Your task to perform on an android device: open app "Booking.com: Hotels and more" (install if not already installed) Image 0: 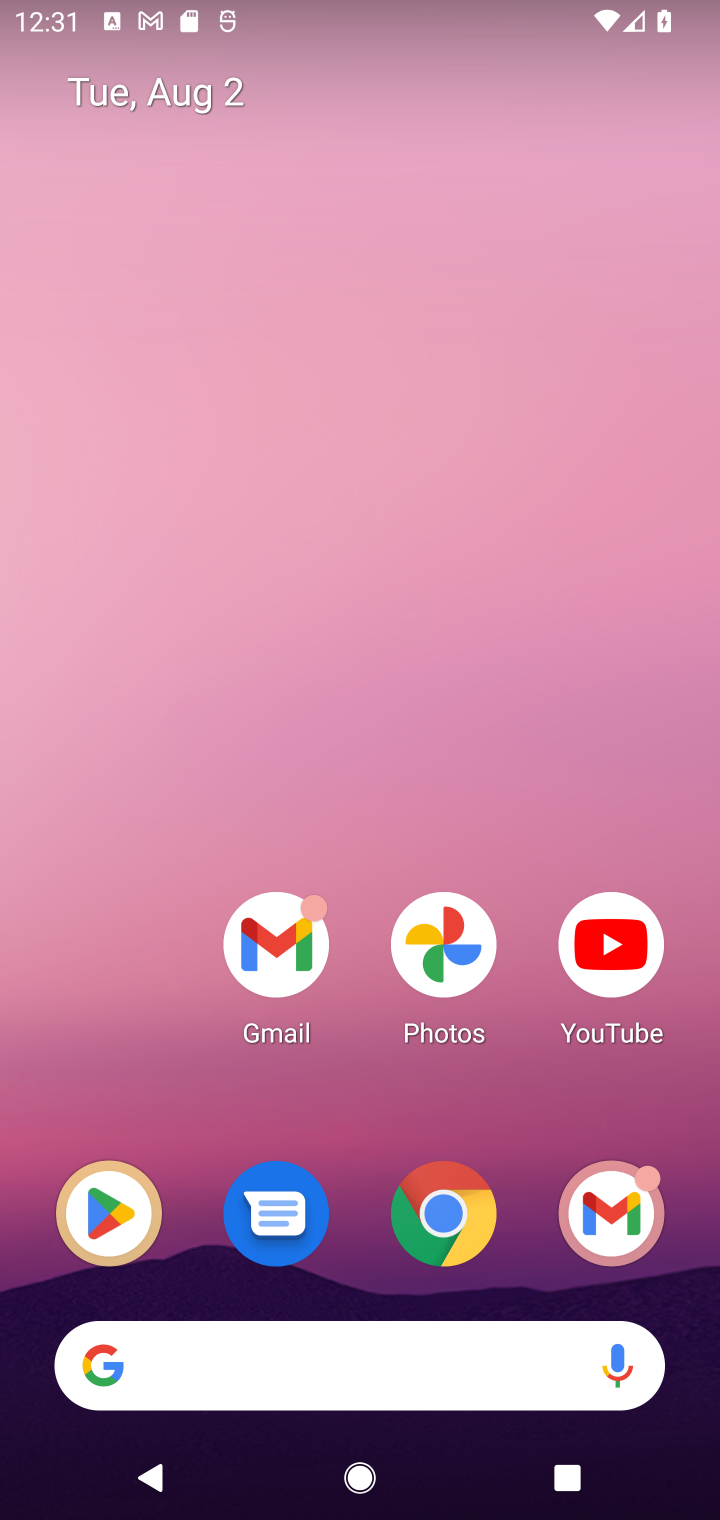
Step 0: click (138, 1214)
Your task to perform on an android device: open app "Booking.com: Hotels and more" (install if not already installed) Image 1: 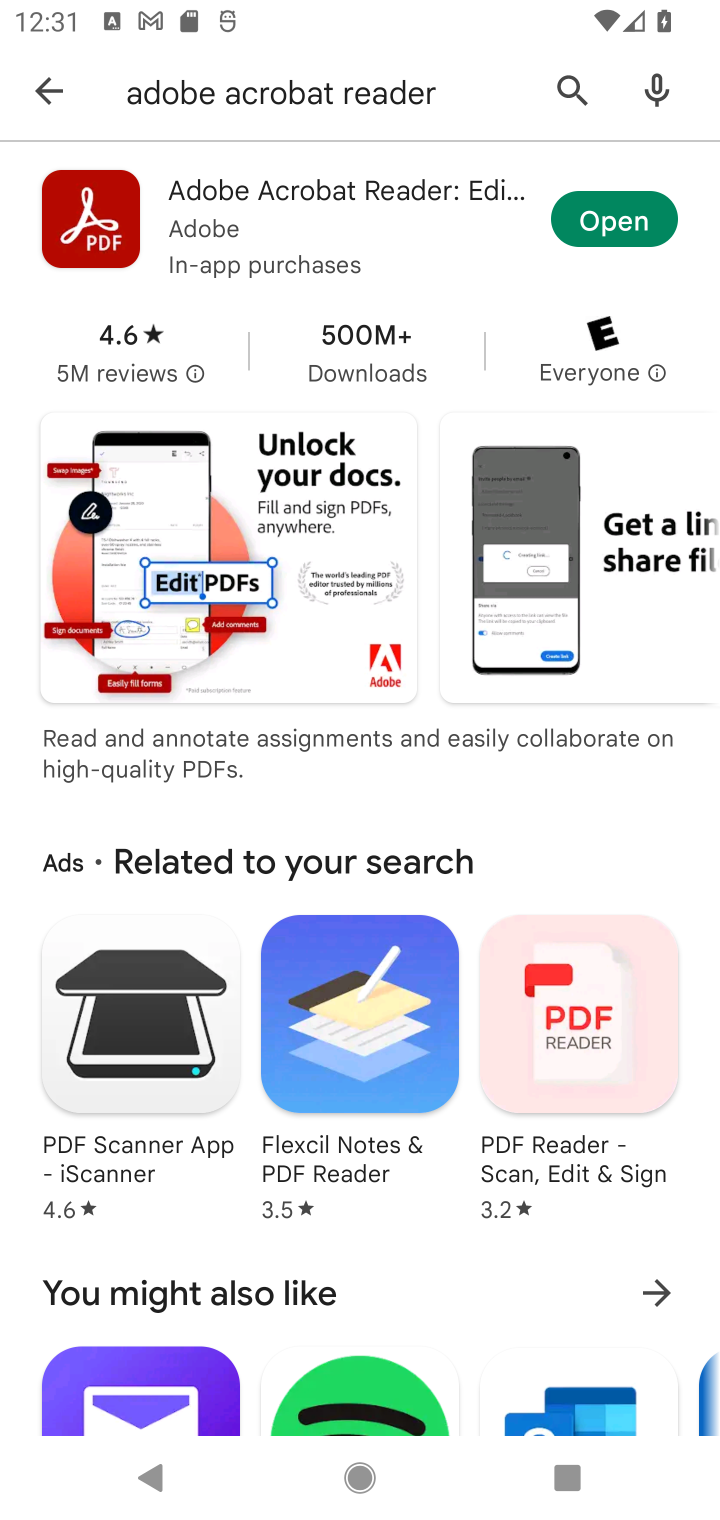
Step 1: click (49, 92)
Your task to perform on an android device: open app "Booking.com: Hotels and more" (install if not already installed) Image 2: 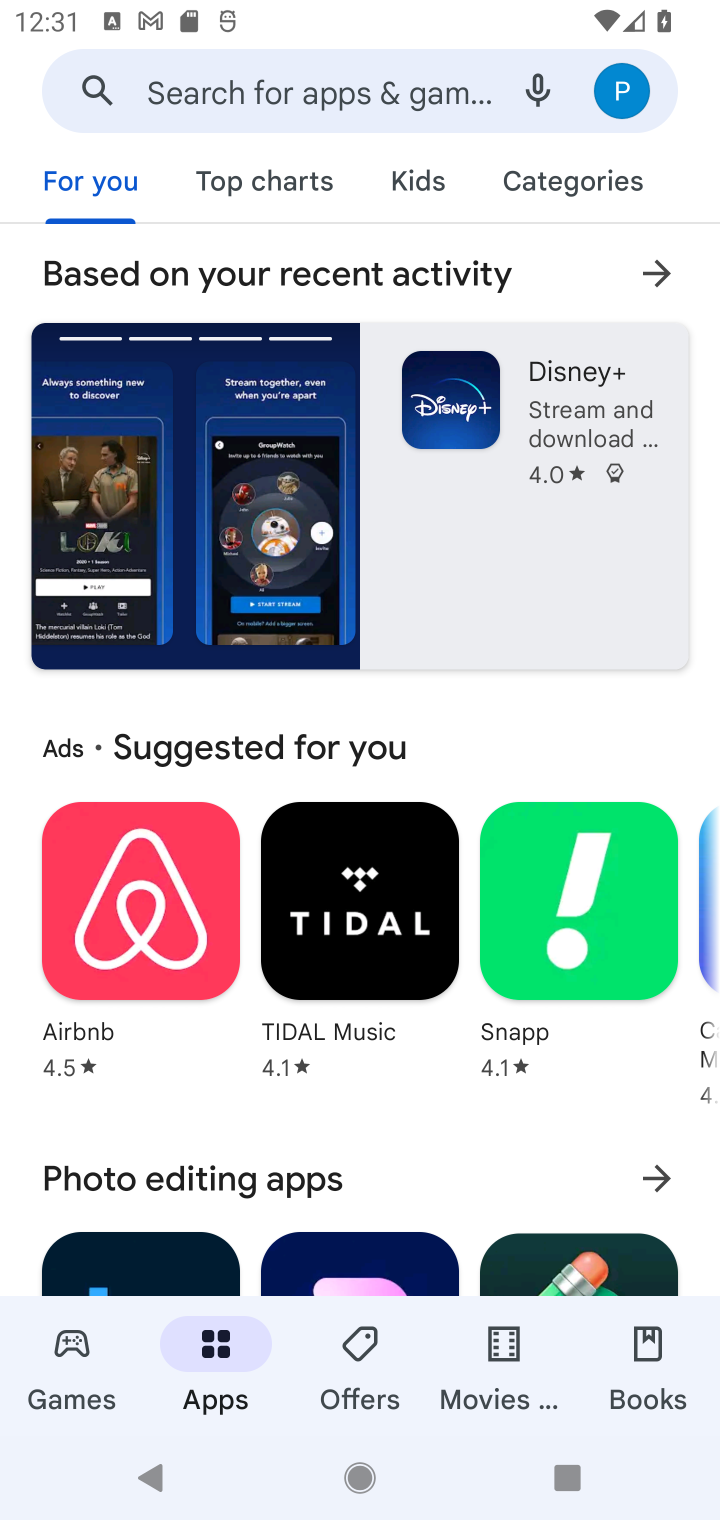
Step 2: click (257, 76)
Your task to perform on an android device: open app "Booking.com: Hotels and more" (install if not already installed) Image 3: 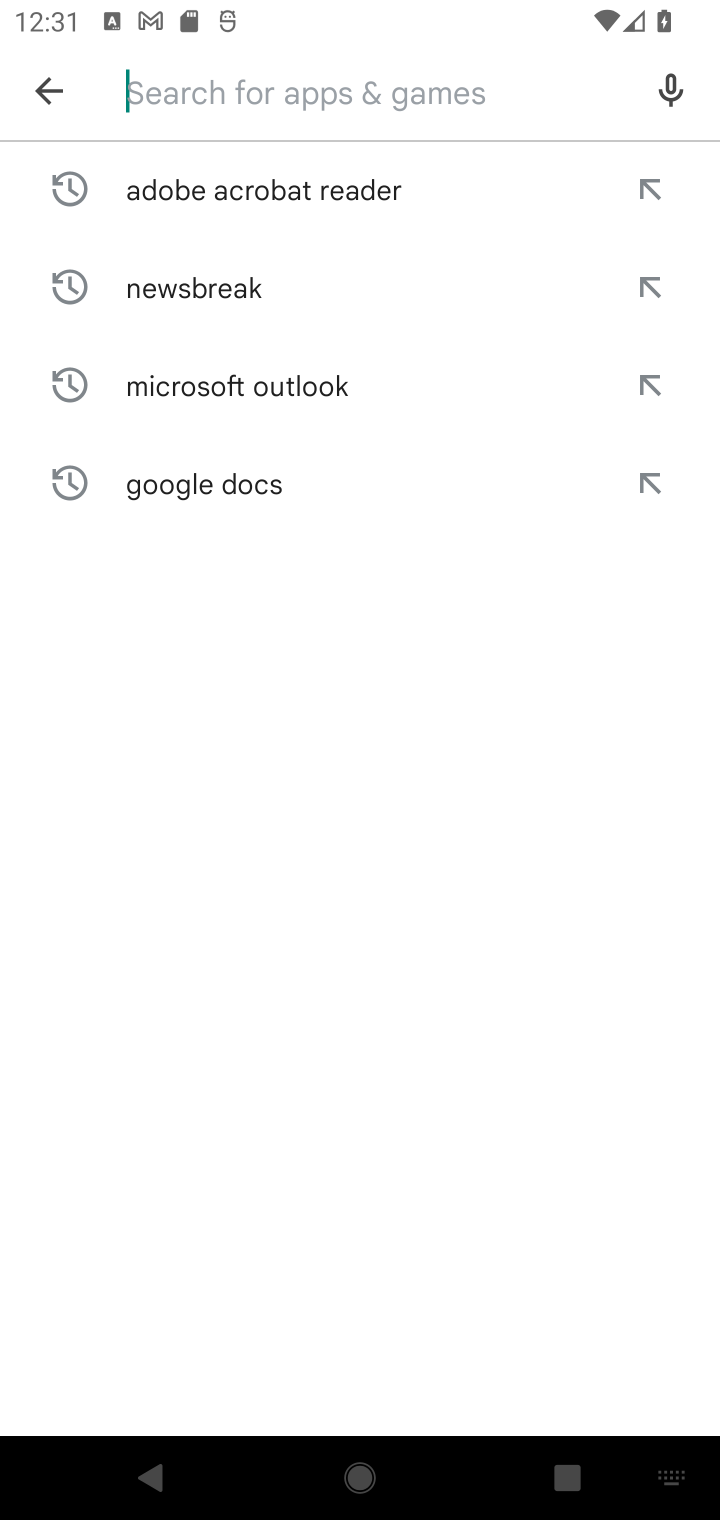
Step 3: type "Booking.com: Hotels and more"
Your task to perform on an android device: open app "Booking.com: Hotels and more" (install if not already installed) Image 4: 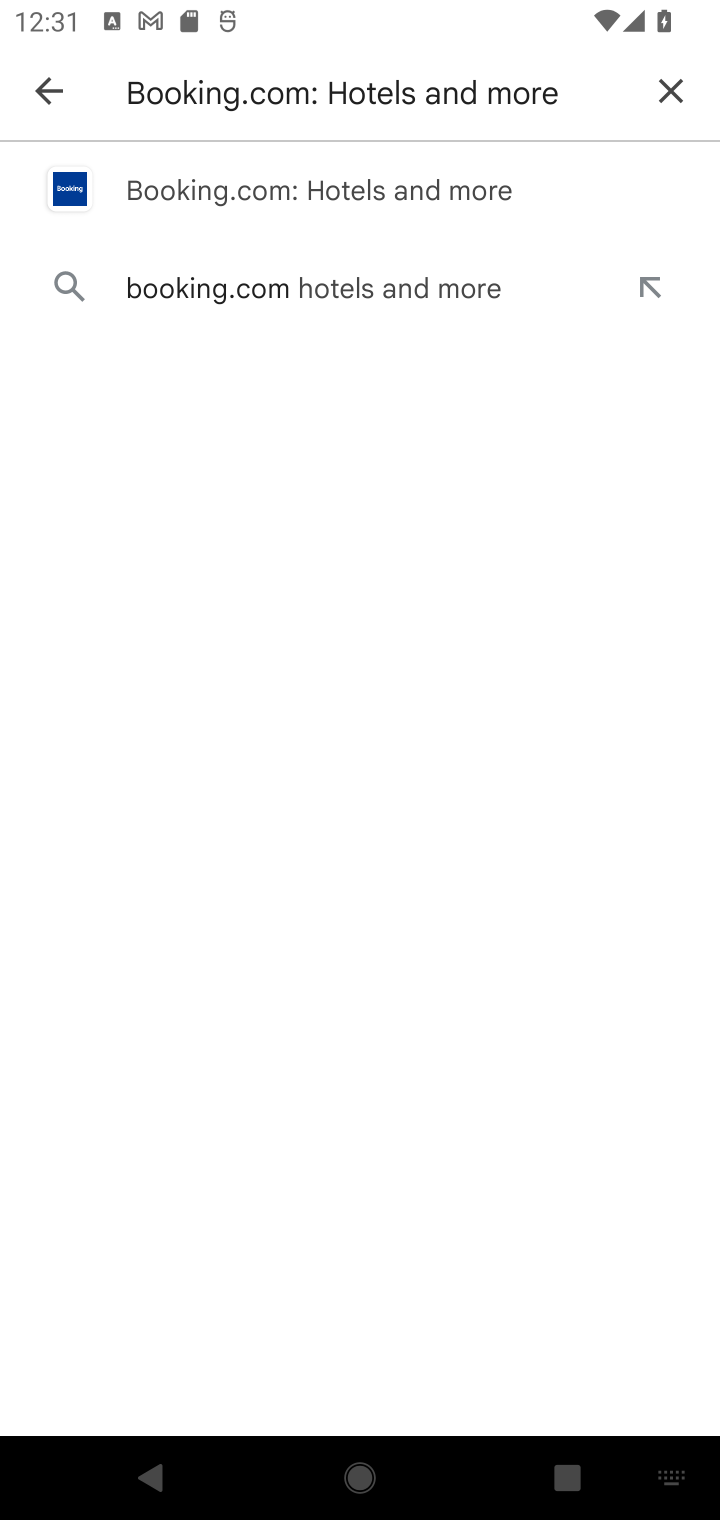
Step 4: click (215, 221)
Your task to perform on an android device: open app "Booking.com: Hotels and more" (install if not already installed) Image 5: 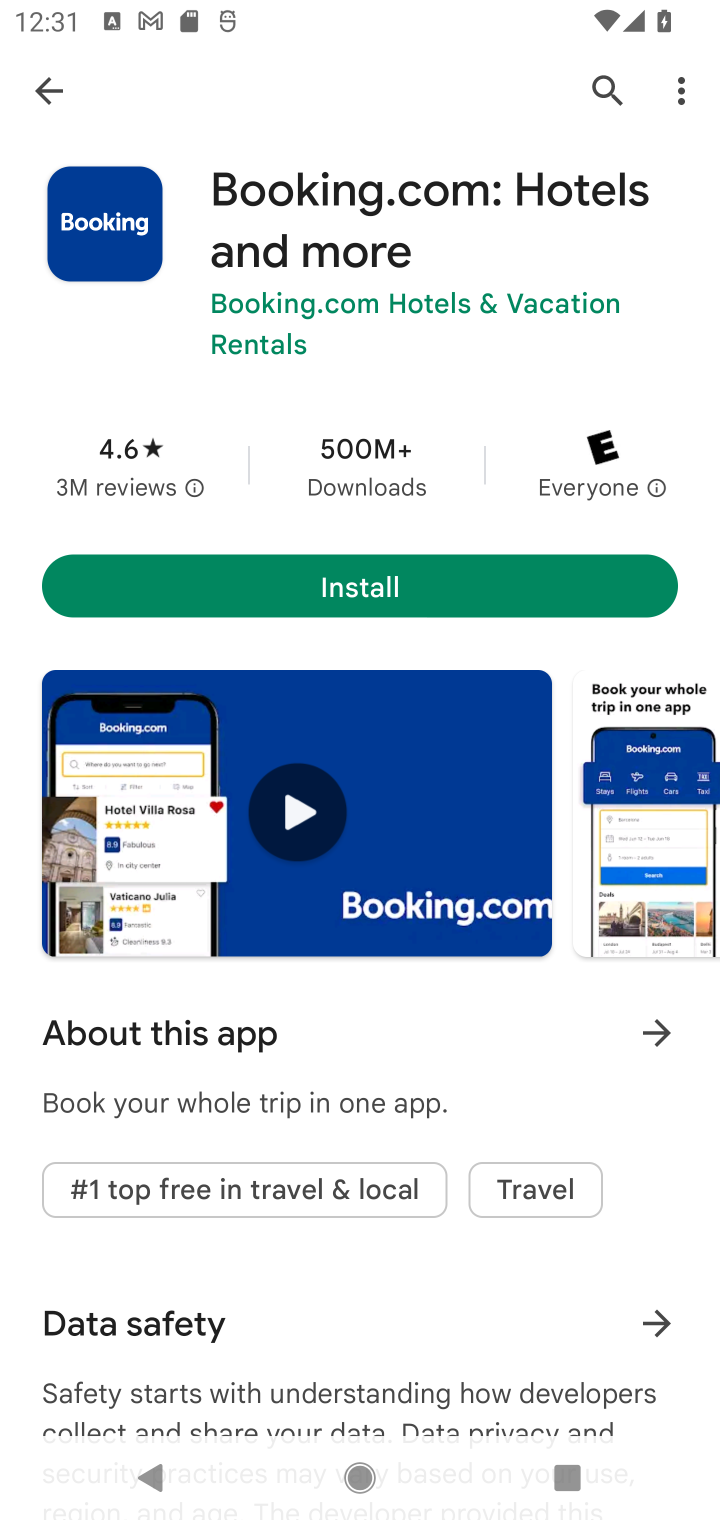
Step 5: click (337, 583)
Your task to perform on an android device: open app "Booking.com: Hotels and more" (install if not already installed) Image 6: 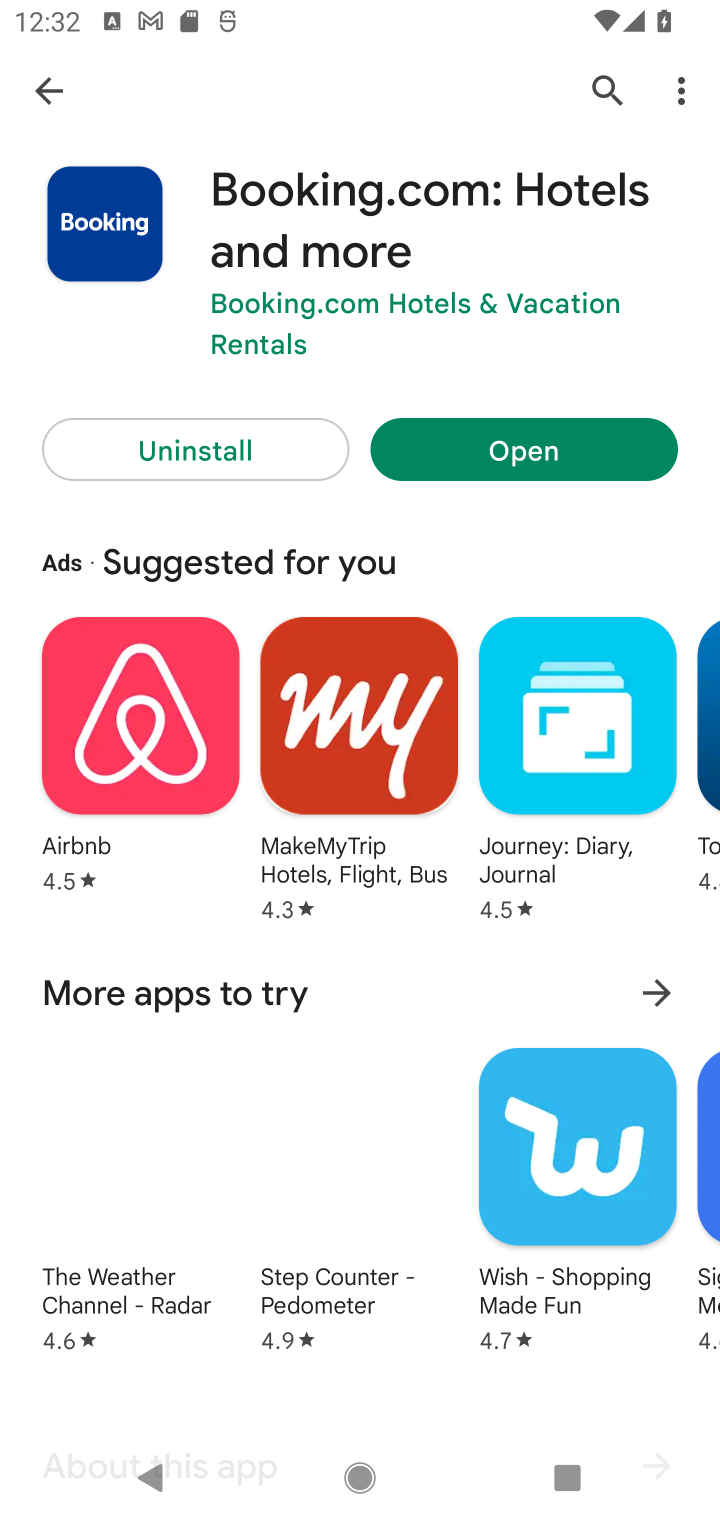
Step 6: click (514, 419)
Your task to perform on an android device: open app "Booking.com: Hotels and more" (install if not already installed) Image 7: 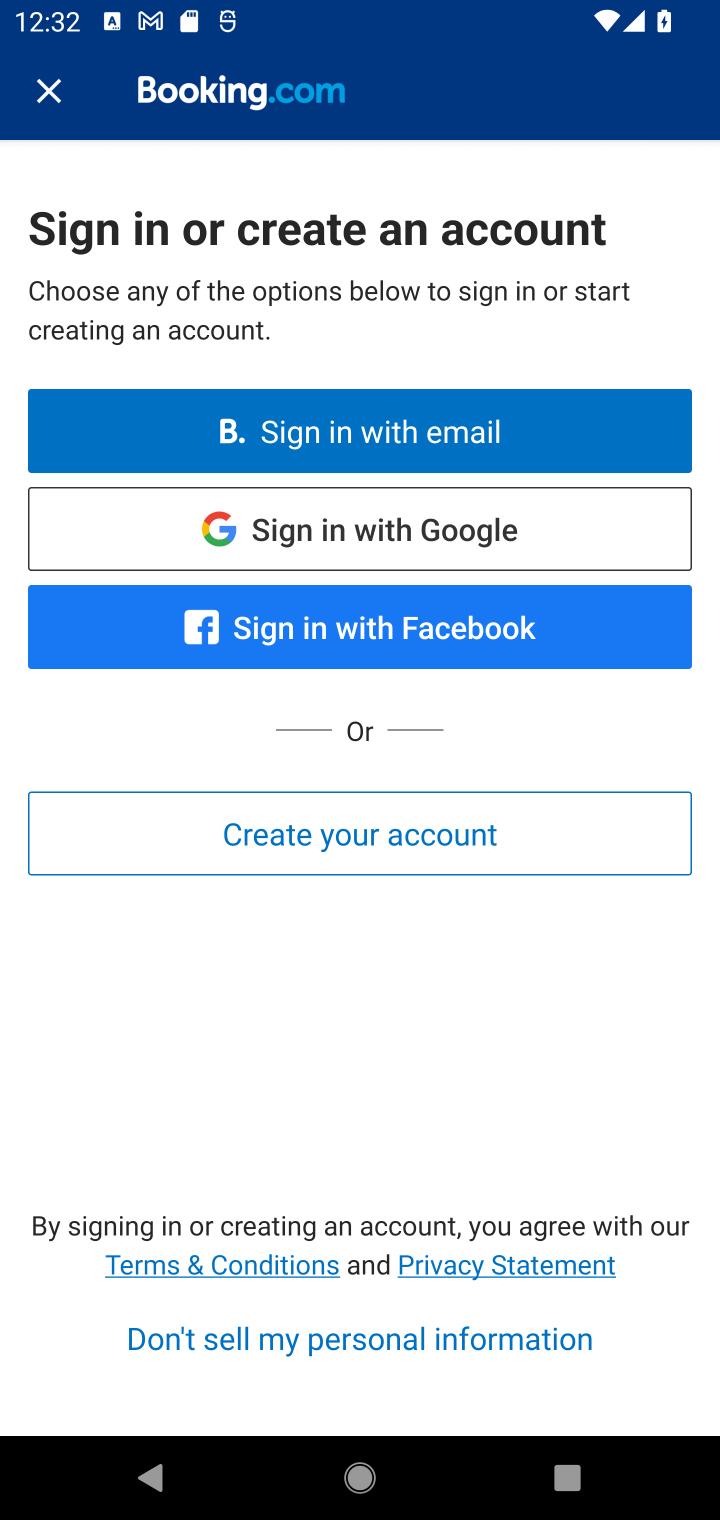
Step 7: task complete